Your task to perform on an android device: Turn on the flashlight Image 0: 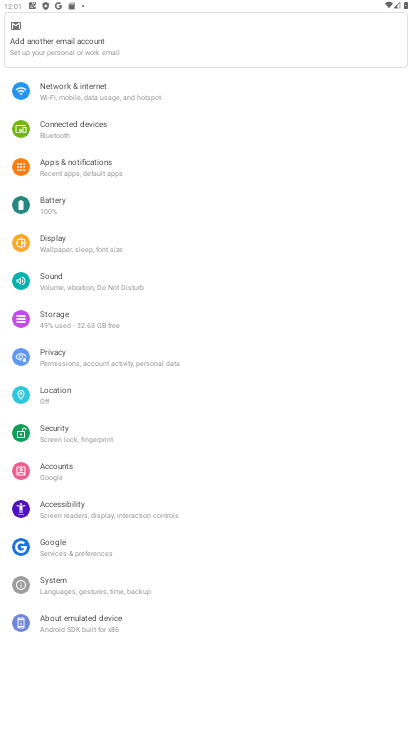
Step 0: drag from (278, 53) to (408, 399)
Your task to perform on an android device: Turn on the flashlight Image 1: 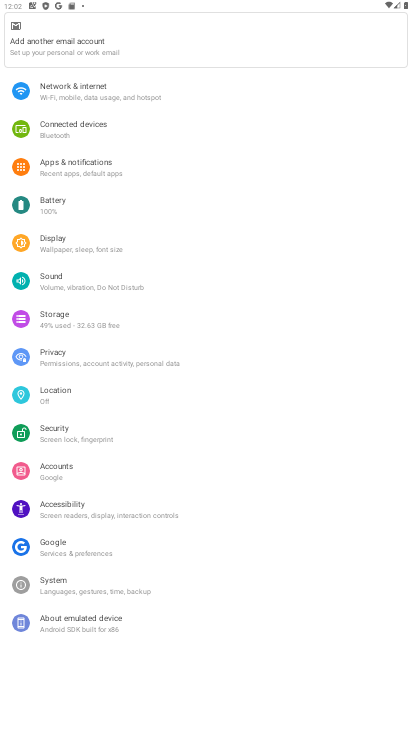
Step 1: drag from (287, 28) to (400, 681)
Your task to perform on an android device: Turn on the flashlight Image 2: 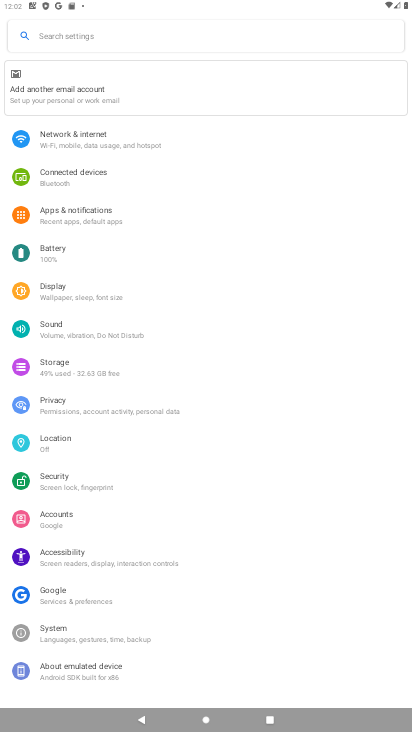
Step 2: drag from (327, 12) to (359, 641)
Your task to perform on an android device: Turn on the flashlight Image 3: 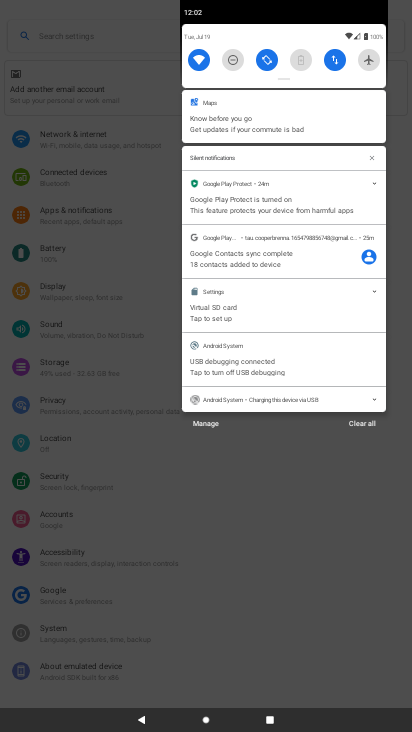
Step 3: drag from (335, 76) to (376, 606)
Your task to perform on an android device: Turn on the flashlight Image 4: 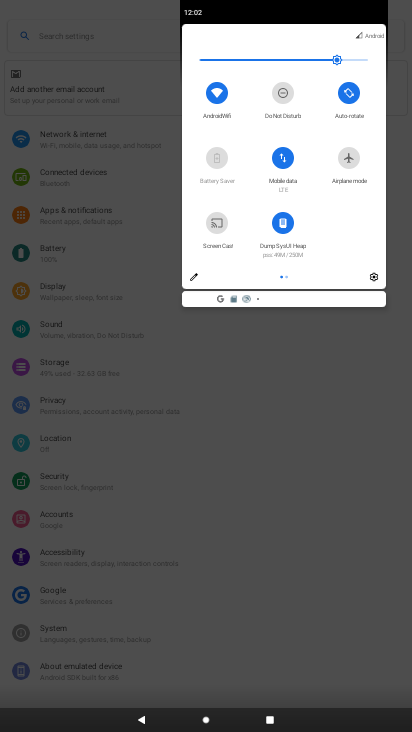
Step 4: drag from (346, 162) to (30, 322)
Your task to perform on an android device: Turn on the flashlight Image 5: 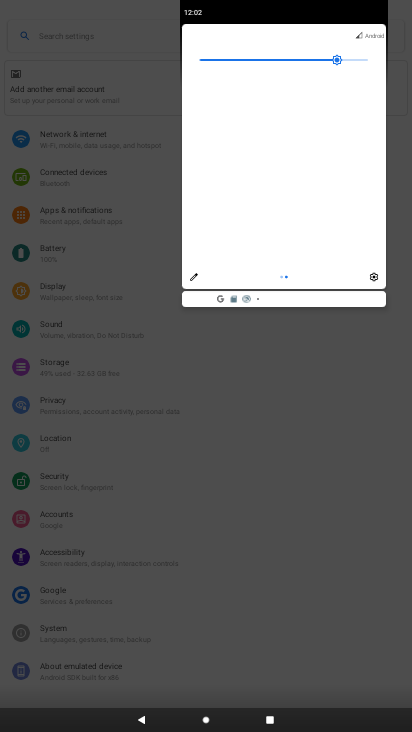
Step 5: click (360, 154)
Your task to perform on an android device: Turn on the flashlight Image 6: 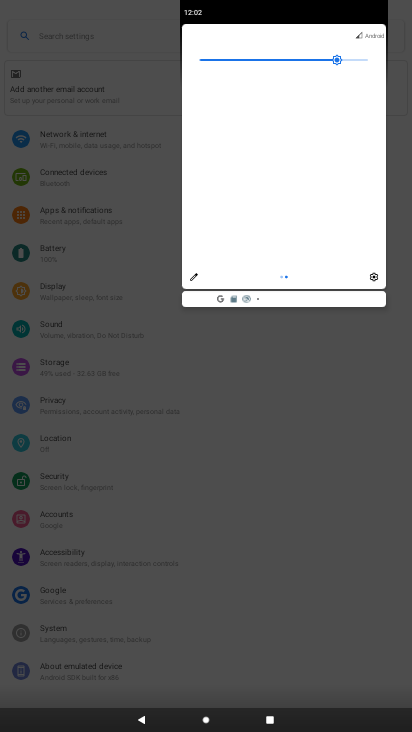
Step 6: task complete